Your task to perform on an android device: Search for seafood restaurants on Google Maps Image 0: 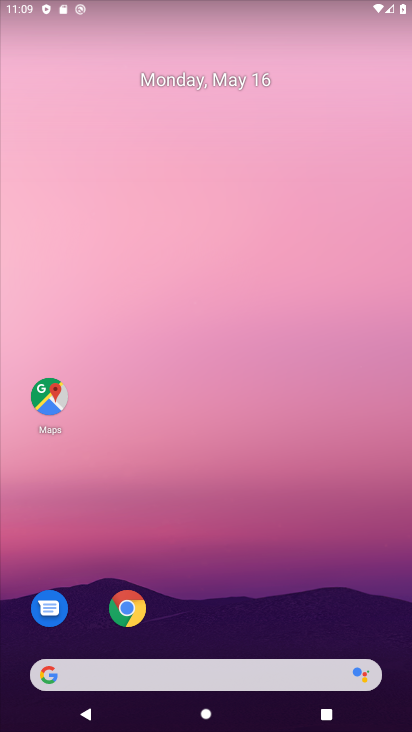
Step 0: click (55, 397)
Your task to perform on an android device: Search for seafood restaurants on Google Maps Image 1: 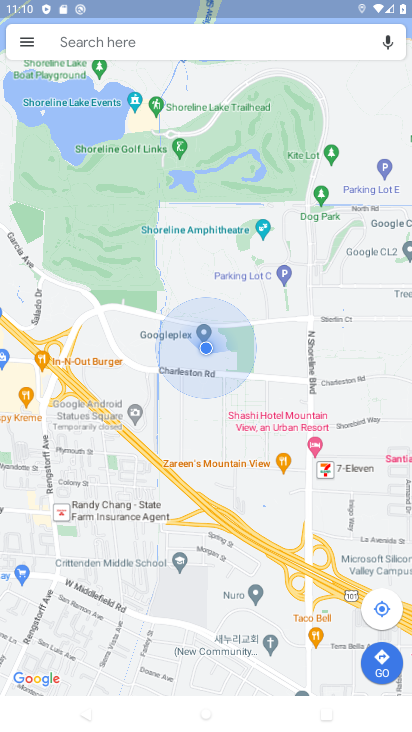
Step 1: click (148, 40)
Your task to perform on an android device: Search for seafood restaurants on Google Maps Image 2: 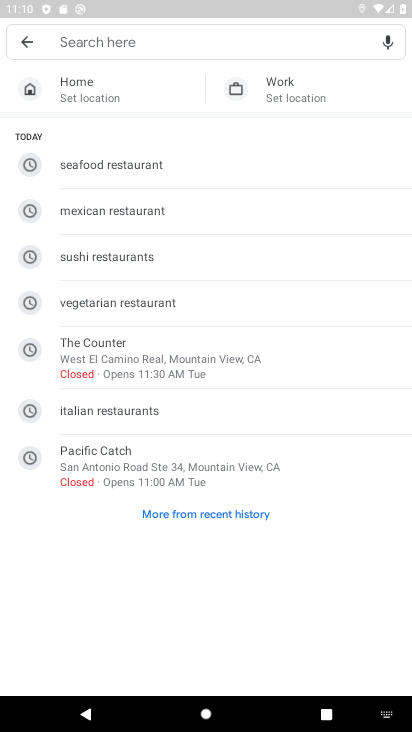
Step 2: click (128, 166)
Your task to perform on an android device: Search for seafood restaurants on Google Maps Image 3: 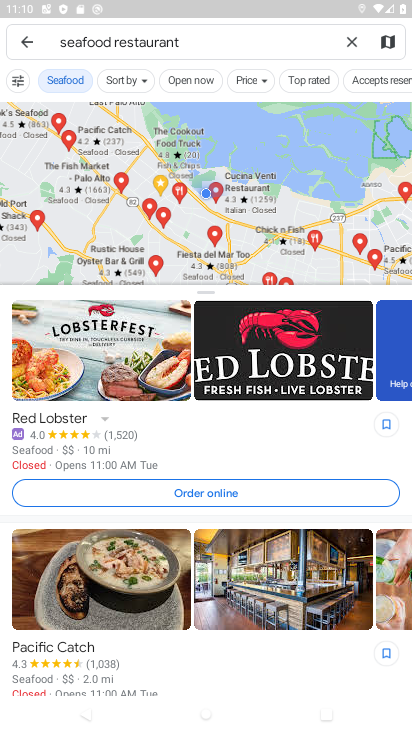
Step 3: task complete